Your task to perform on an android device: Open the web browser Image 0: 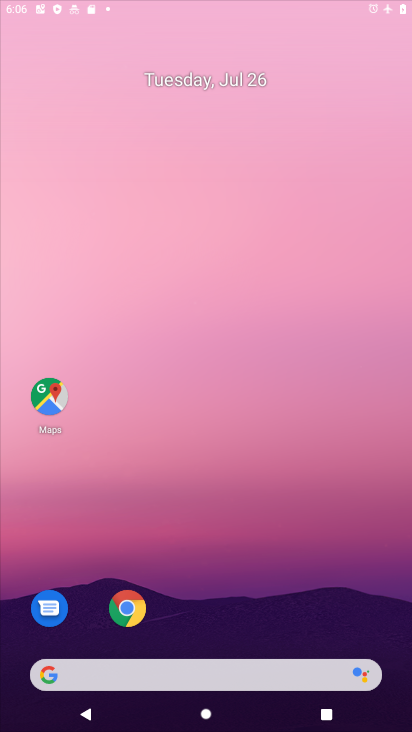
Step 0: press home button
Your task to perform on an android device: Open the web browser Image 1: 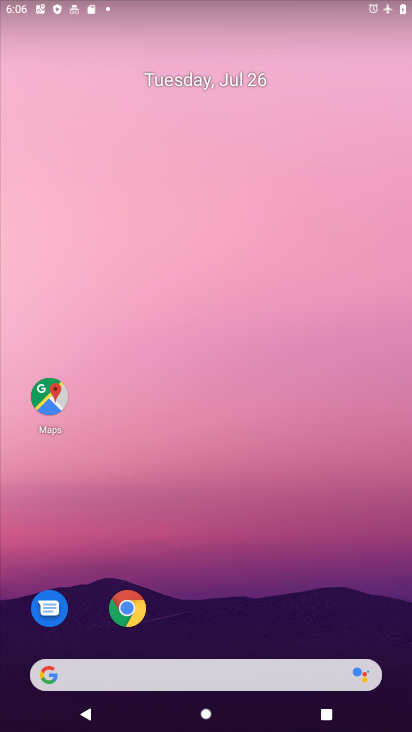
Step 1: click (47, 675)
Your task to perform on an android device: Open the web browser Image 2: 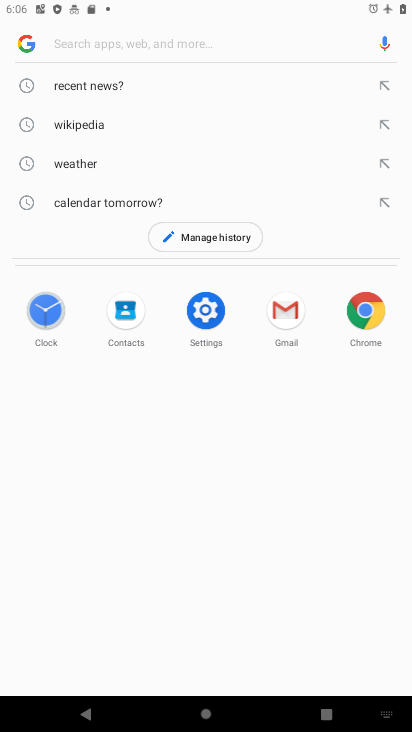
Step 2: task complete